Your task to perform on an android device: turn on the 24-hour format for clock Image 0: 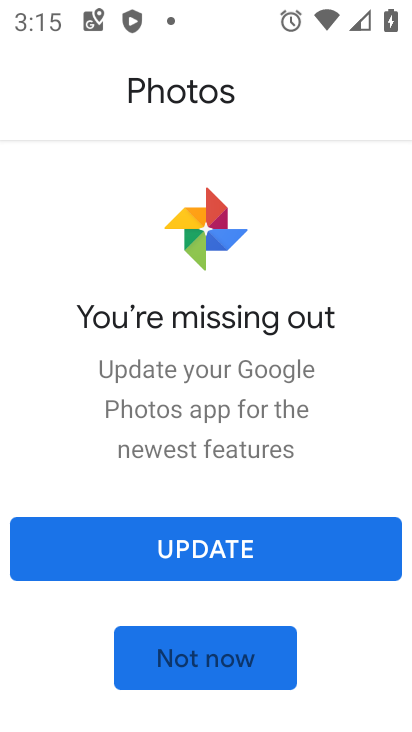
Step 0: press home button
Your task to perform on an android device: turn on the 24-hour format for clock Image 1: 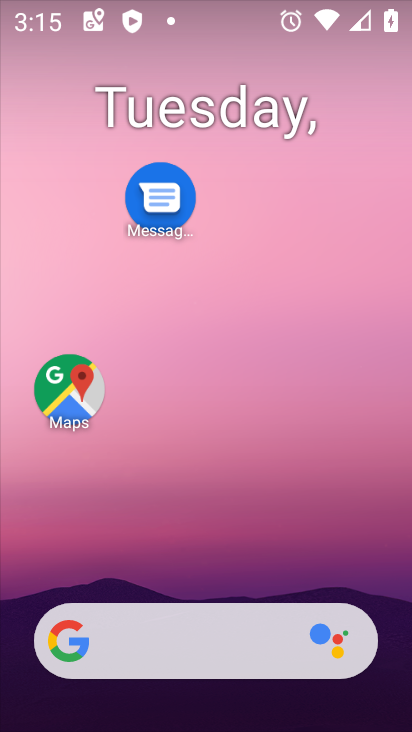
Step 1: drag from (206, 554) to (218, 233)
Your task to perform on an android device: turn on the 24-hour format for clock Image 2: 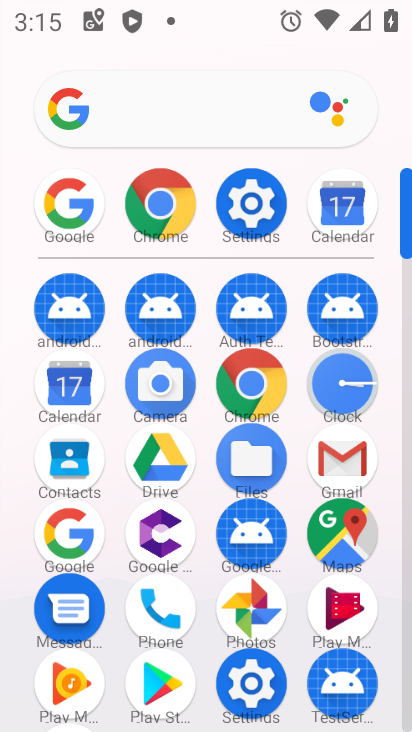
Step 2: click (336, 399)
Your task to perform on an android device: turn on the 24-hour format for clock Image 3: 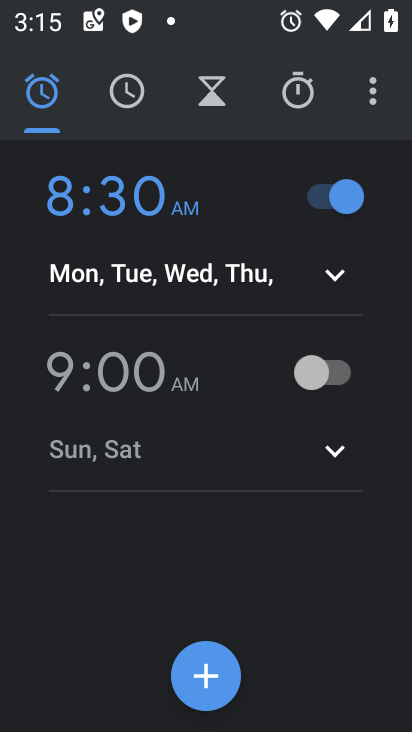
Step 3: click (362, 107)
Your task to perform on an android device: turn on the 24-hour format for clock Image 4: 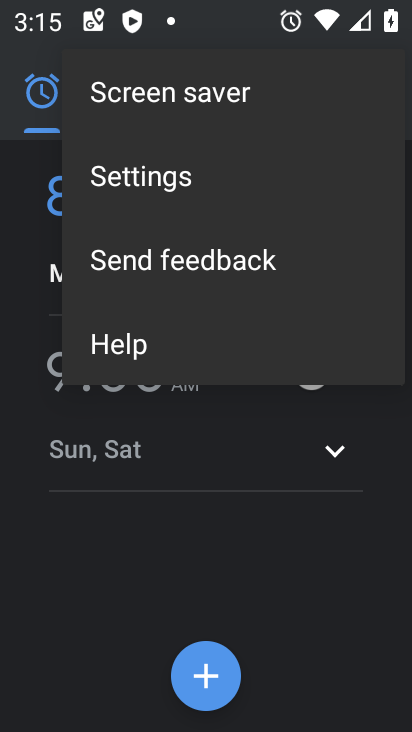
Step 4: click (104, 182)
Your task to perform on an android device: turn on the 24-hour format for clock Image 5: 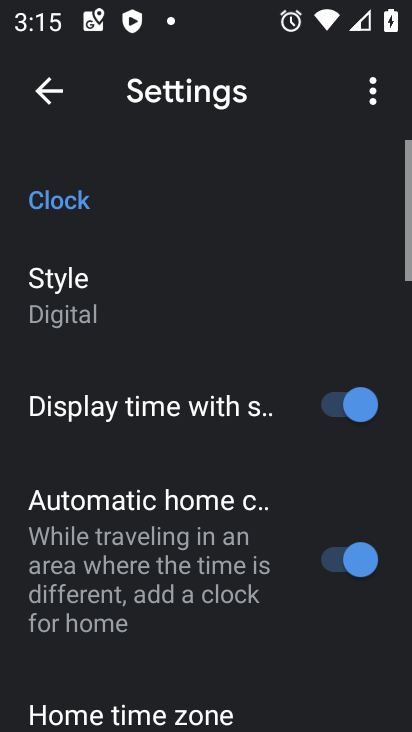
Step 5: drag from (175, 562) to (231, 247)
Your task to perform on an android device: turn on the 24-hour format for clock Image 6: 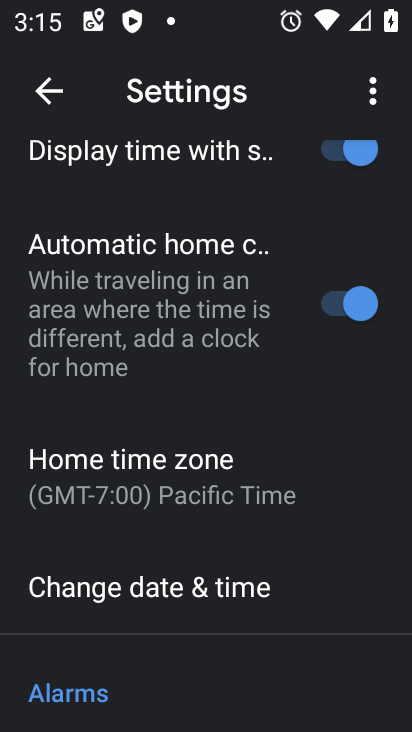
Step 6: click (273, 600)
Your task to perform on an android device: turn on the 24-hour format for clock Image 7: 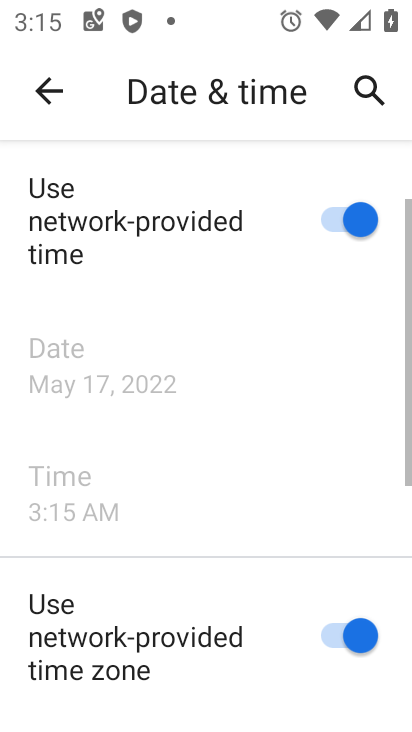
Step 7: drag from (273, 600) to (335, 272)
Your task to perform on an android device: turn on the 24-hour format for clock Image 8: 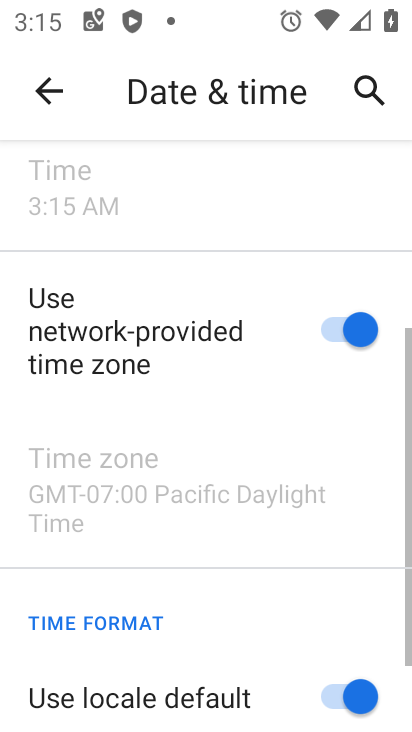
Step 8: drag from (298, 614) to (296, 340)
Your task to perform on an android device: turn on the 24-hour format for clock Image 9: 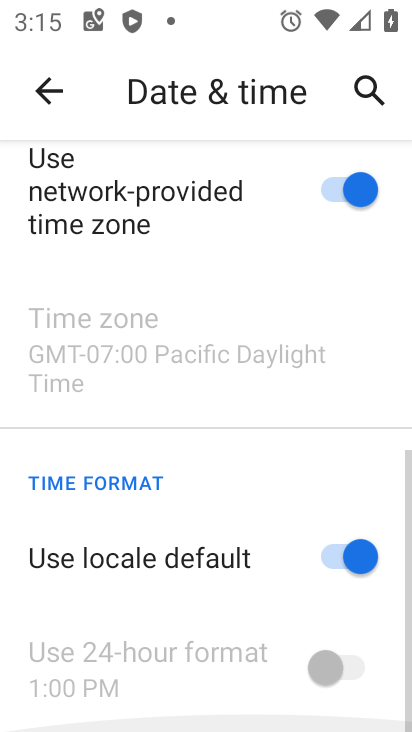
Step 9: drag from (254, 643) to (253, 483)
Your task to perform on an android device: turn on the 24-hour format for clock Image 10: 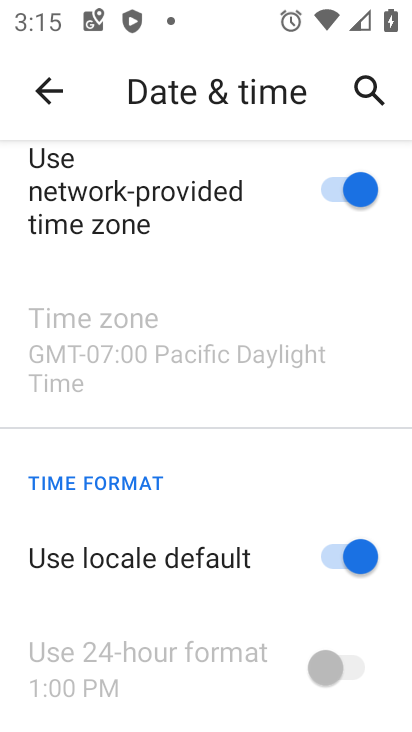
Step 10: click (329, 561)
Your task to perform on an android device: turn on the 24-hour format for clock Image 11: 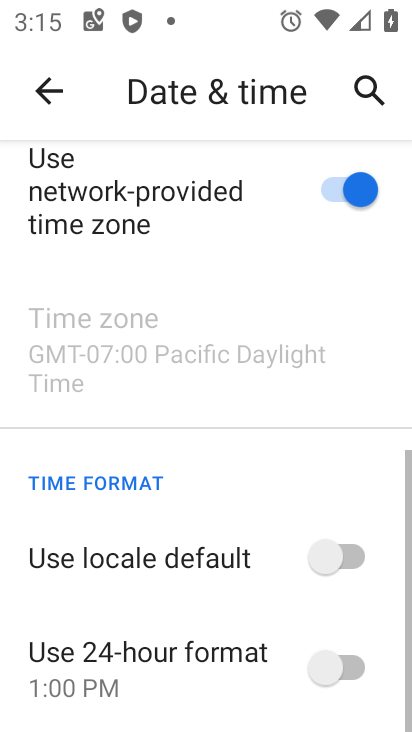
Step 11: click (351, 674)
Your task to perform on an android device: turn on the 24-hour format for clock Image 12: 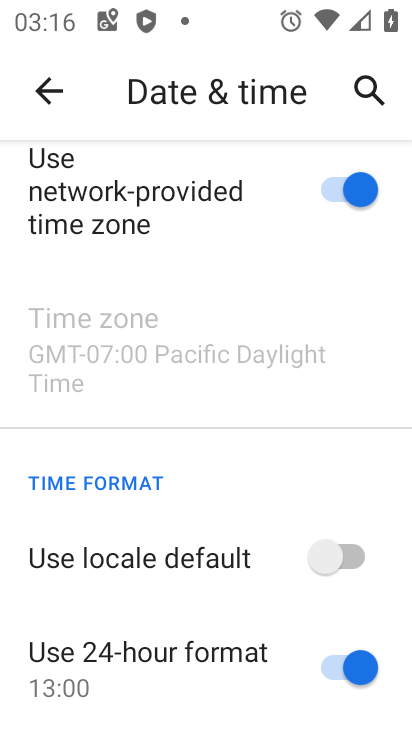
Step 12: task complete